Your task to perform on an android device: add a label to a message in the gmail app Image 0: 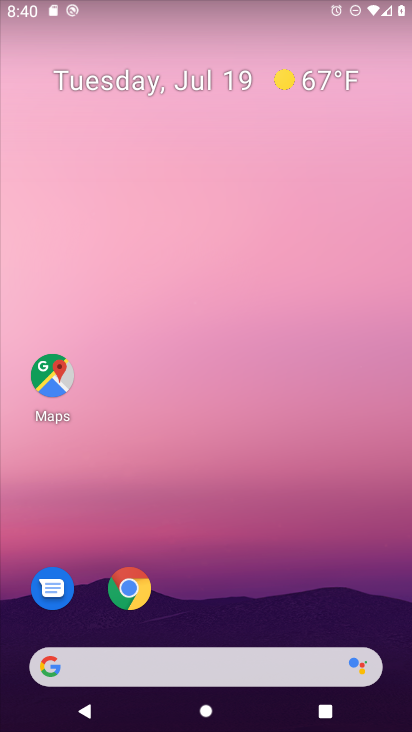
Step 0: drag from (273, 571) to (321, 93)
Your task to perform on an android device: add a label to a message in the gmail app Image 1: 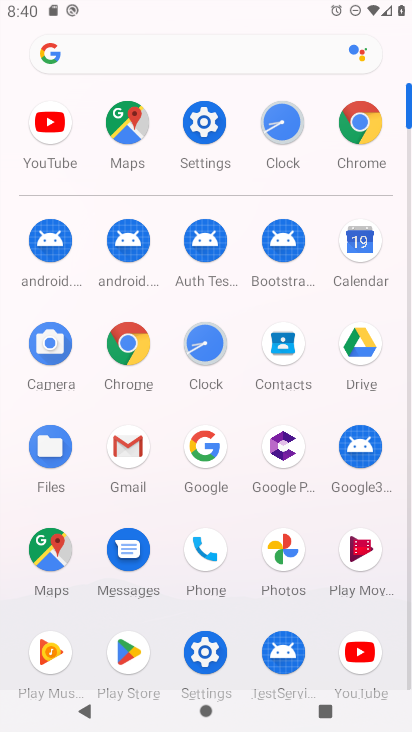
Step 1: click (135, 452)
Your task to perform on an android device: add a label to a message in the gmail app Image 2: 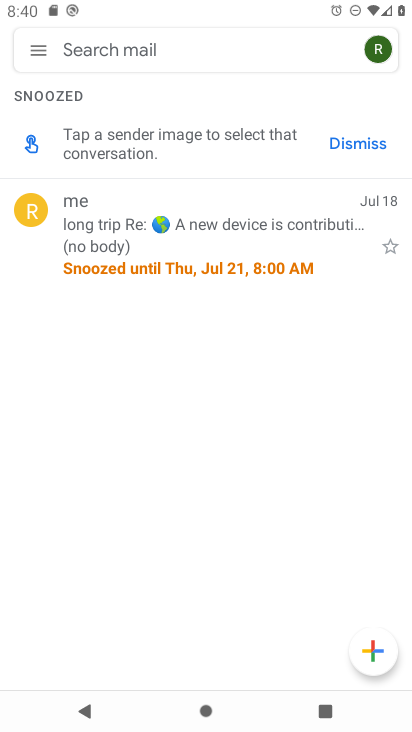
Step 2: click (235, 227)
Your task to perform on an android device: add a label to a message in the gmail app Image 3: 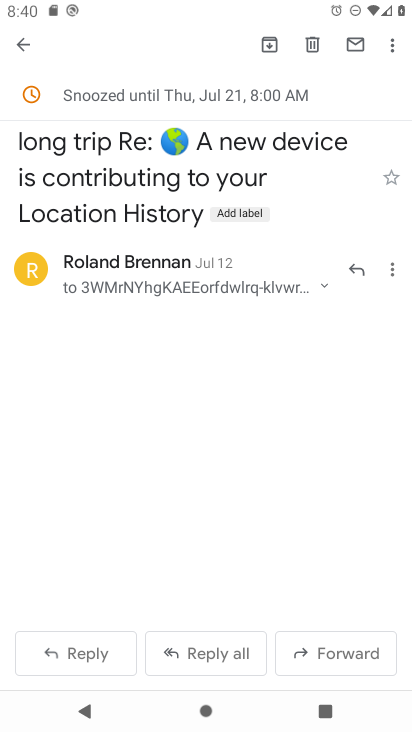
Step 3: click (247, 212)
Your task to perform on an android device: add a label to a message in the gmail app Image 4: 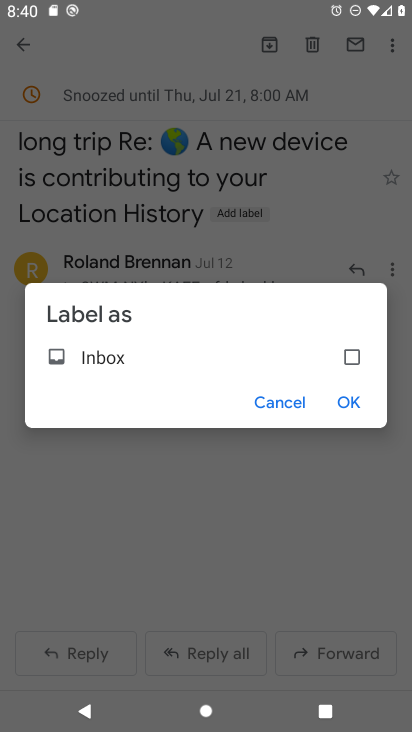
Step 4: click (353, 360)
Your task to perform on an android device: add a label to a message in the gmail app Image 5: 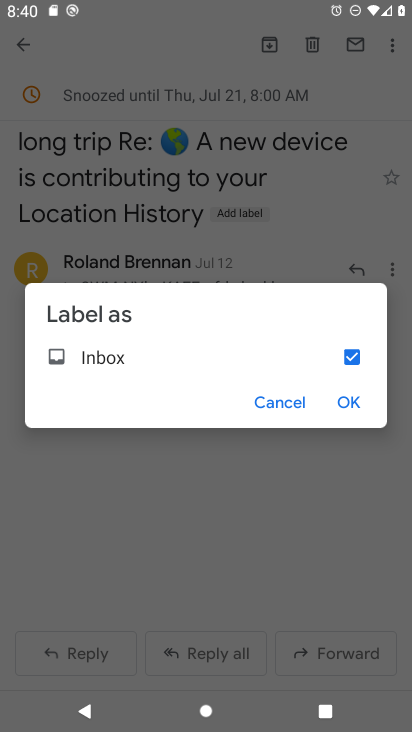
Step 5: click (348, 407)
Your task to perform on an android device: add a label to a message in the gmail app Image 6: 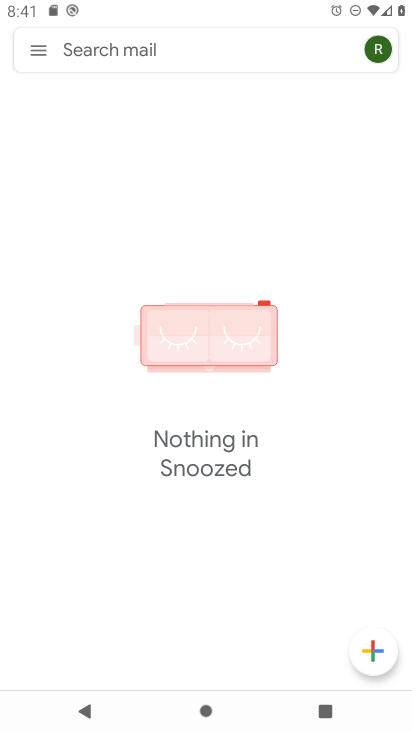
Step 6: task complete